Your task to perform on an android device: change the upload size in google photos Image 0: 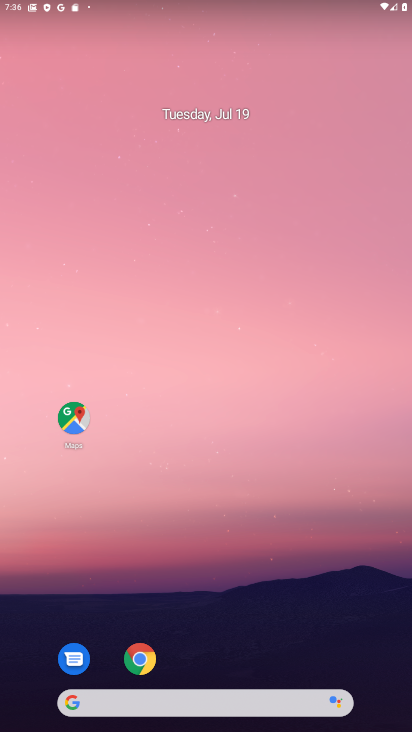
Step 0: drag from (204, 654) to (241, 15)
Your task to perform on an android device: change the upload size in google photos Image 1: 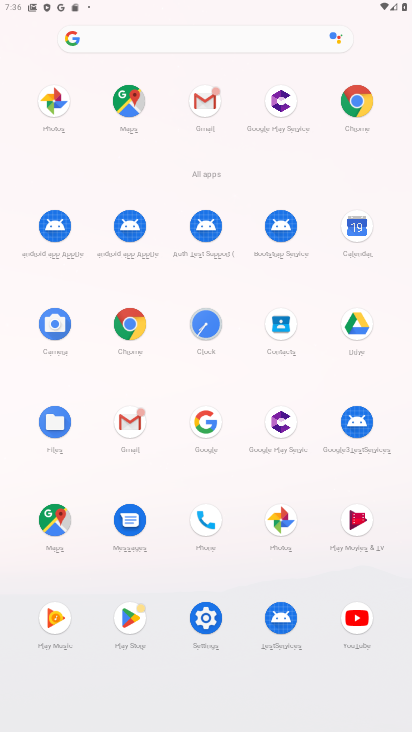
Step 1: click (276, 535)
Your task to perform on an android device: change the upload size in google photos Image 2: 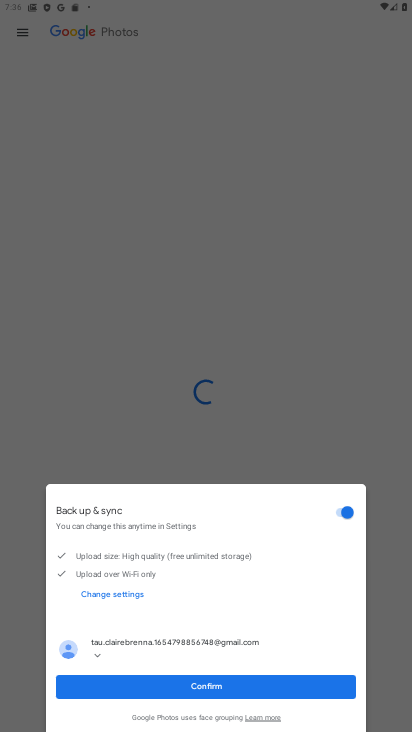
Step 2: click (241, 687)
Your task to perform on an android device: change the upload size in google photos Image 3: 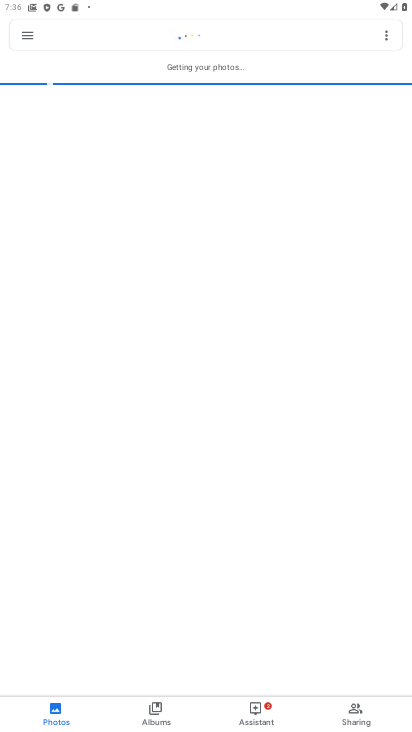
Step 3: click (26, 32)
Your task to perform on an android device: change the upload size in google photos Image 4: 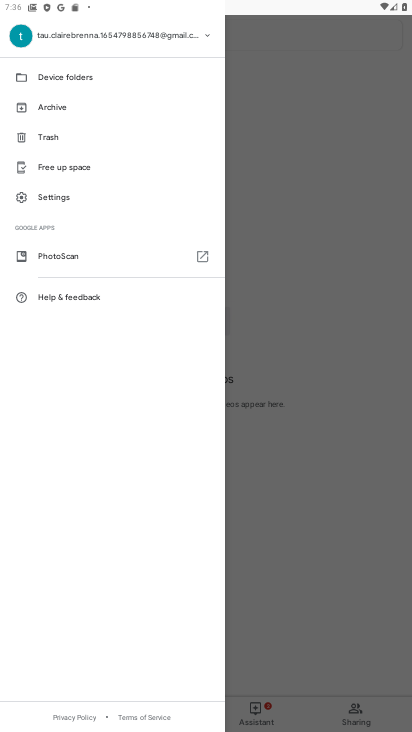
Step 4: click (56, 195)
Your task to perform on an android device: change the upload size in google photos Image 5: 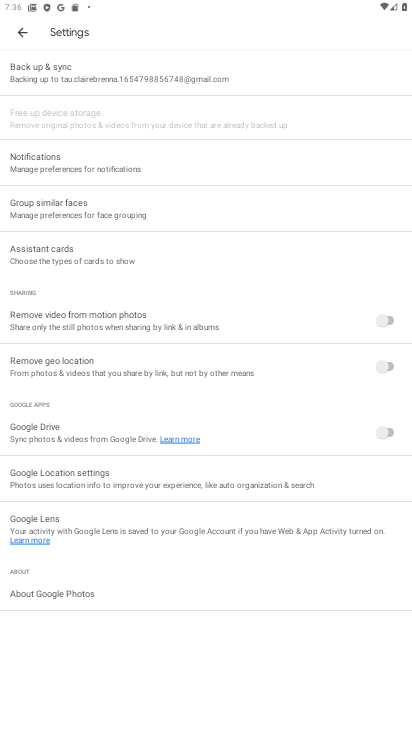
Step 5: click (79, 77)
Your task to perform on an android device: change the upload size in google photos Image 6: 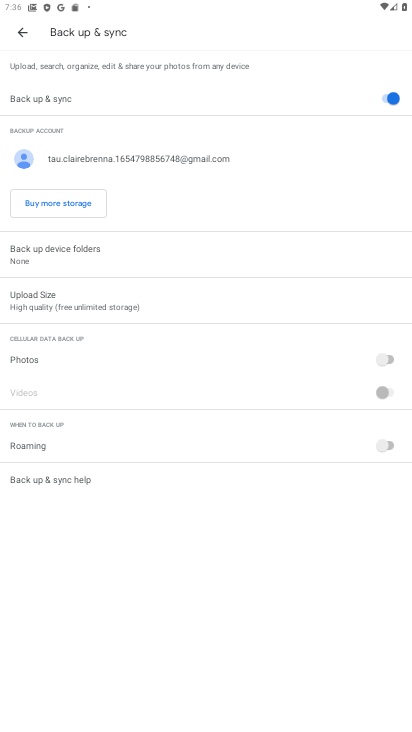
Step 6: click (65, 302)
Your task to perform on an android device: change the upload size in google photos Image 7: 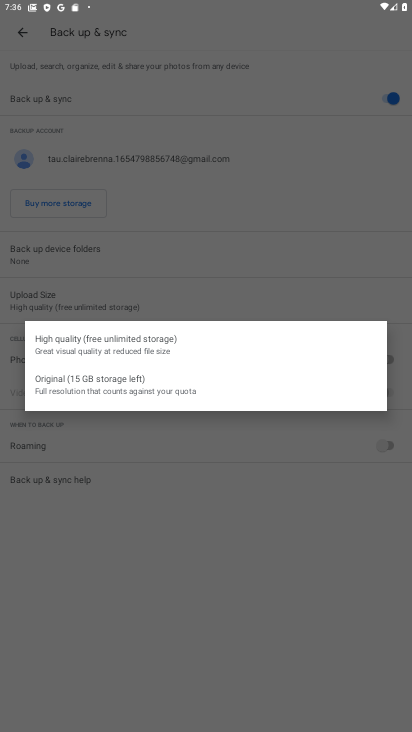
Step 7: click (78, 379)
Your task to perform on an android device: change the upload size in google photos Image 8: 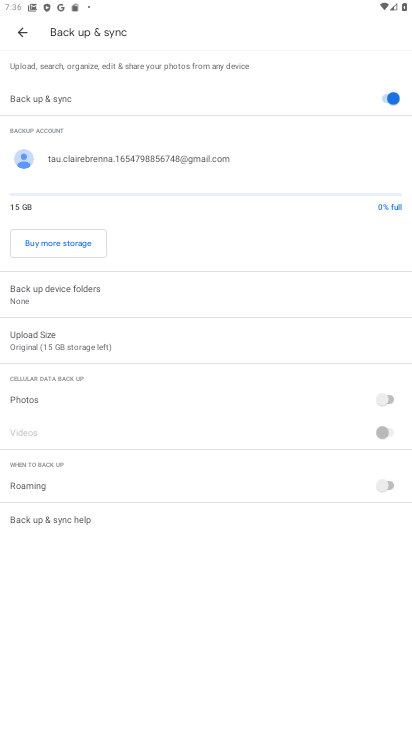
Step 8: task complete